Your task to perform on an android device: Open my contact list Image 0: 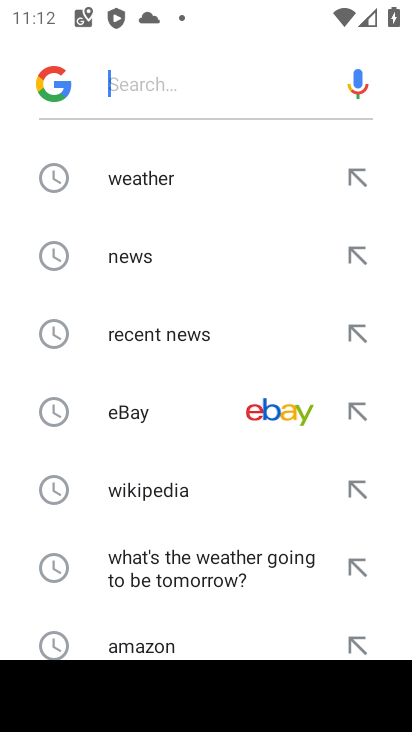
Step 0: press home button
Your task to perform on an android device: Open my contact list Image 1: 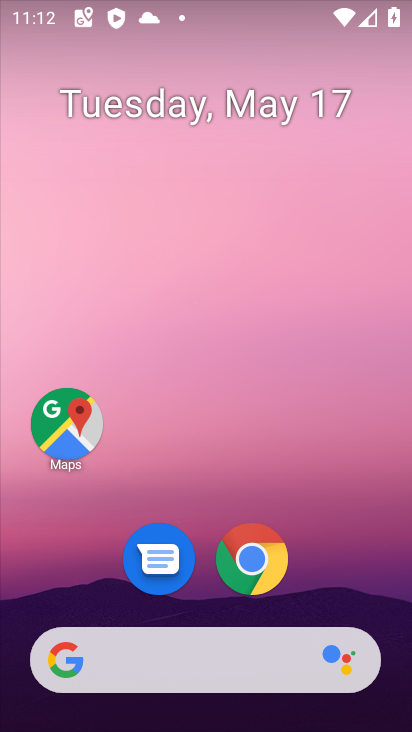
Step 1: drag from (151, 720) to (248, 258)
Your task to perform on an android device: Open my contact list Image 2: 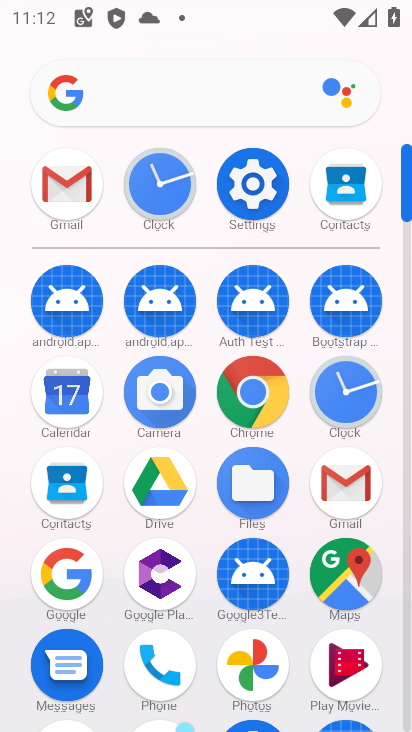
Step 2: click (60, 497)
Your task to perform on an android device: Open my contact list Image 3: 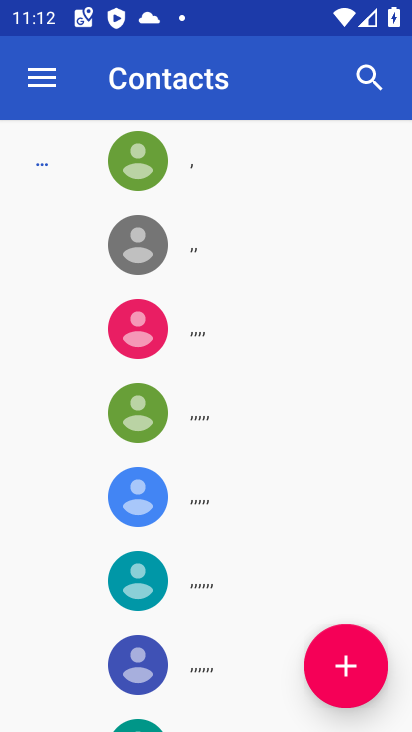
Step 3: task complete